Your task to perform on an android device: turn on notifications settings in the gmail app Image 0: 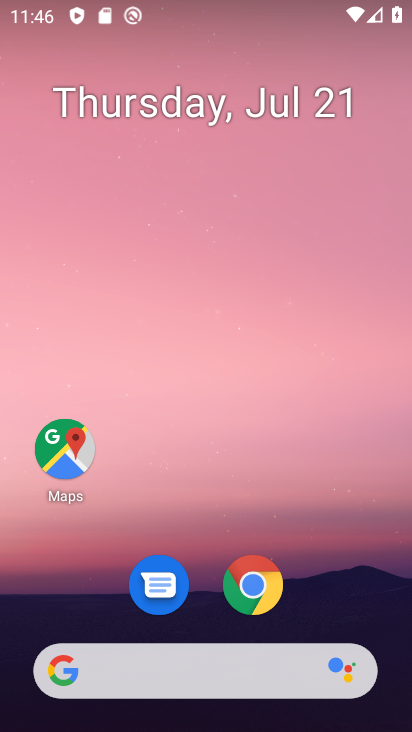
Step 0: press home button
Your task to perform on an android device: turn on notifications settings in the gmail app Image 1: 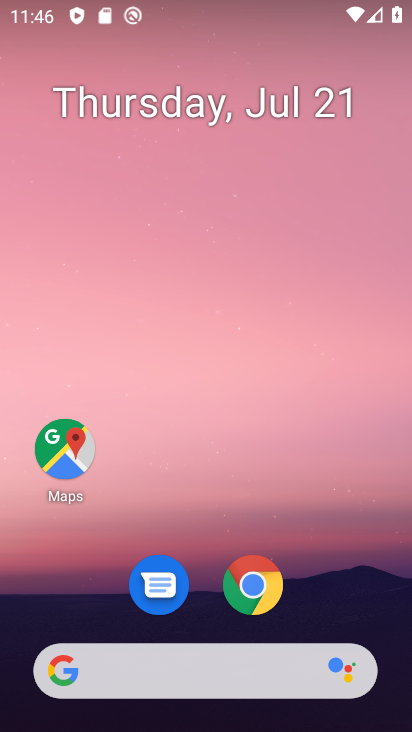
Step 1: drag from (232, 514) to (222, 4)
Your task to perform on an android device: turn on notifications settings in the gmail app Image 2: 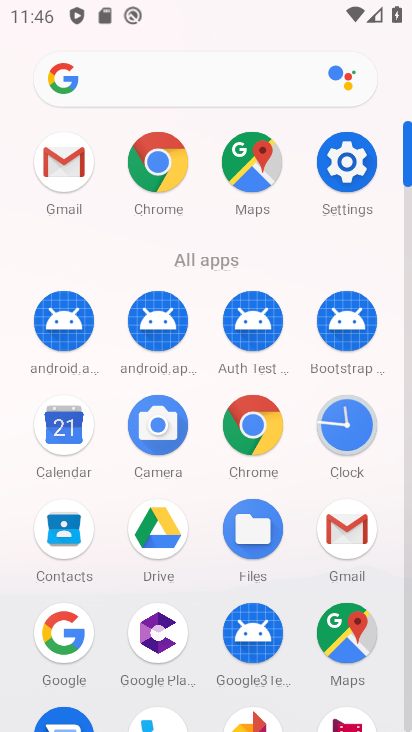
Step 2: click (64, 173)
Your task to perform on an android device: turn on notifications settings in the gmail app Image 3: 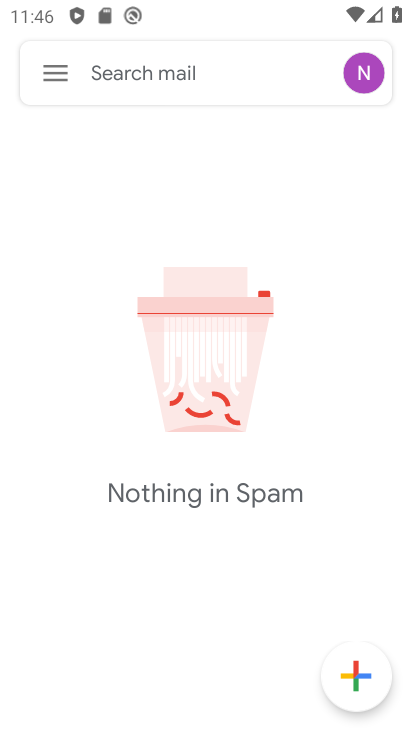
Step 3: click (61, 72)
Your task to perform on an android device: turn on notifications settings in the gmail app Image 4: 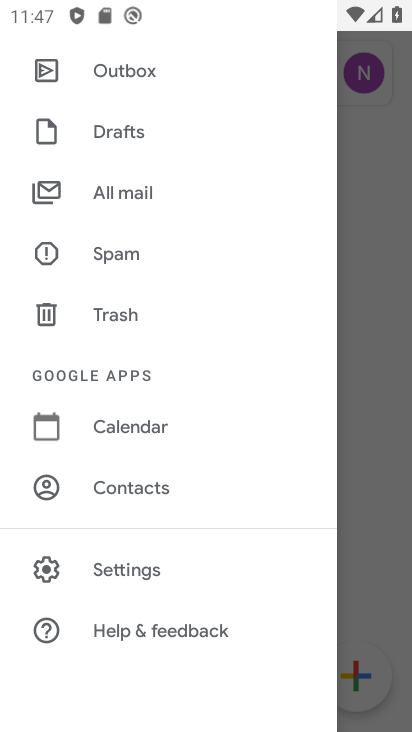
Step 4: click (146, 572)
Your task to perform on an android device: turn on notifications settings in the gmail app Image 5: 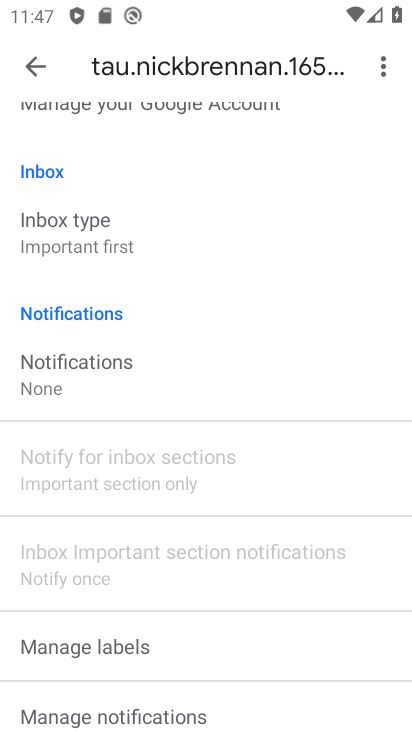
Step 5: click (88, 366)
Your task to perform on an android device: turn on notifications settings in the gmail app Image 6: 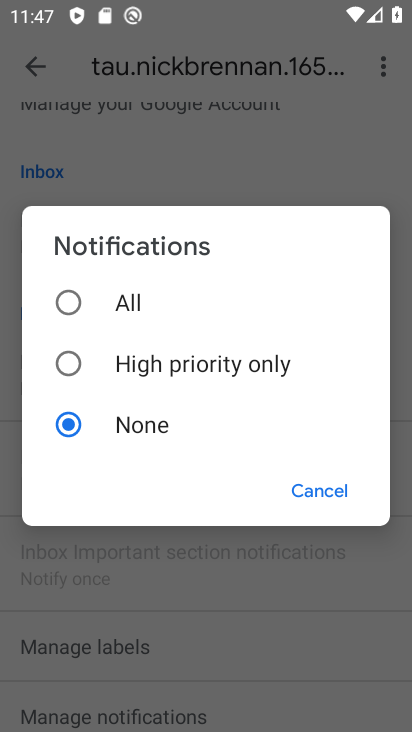
Step 6: click (67, 302)
Your task to perform on an android device: turn on notifications settings in the gmail app Image 7: 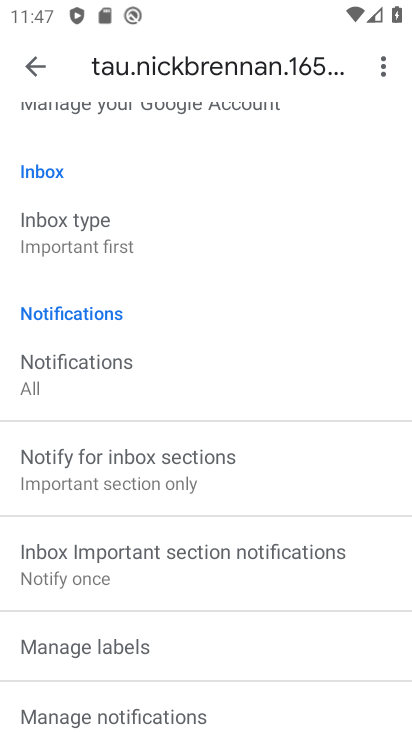
Step 7: task complete